Your task to perform on an android device: turn on bluetooth scan Image 0: 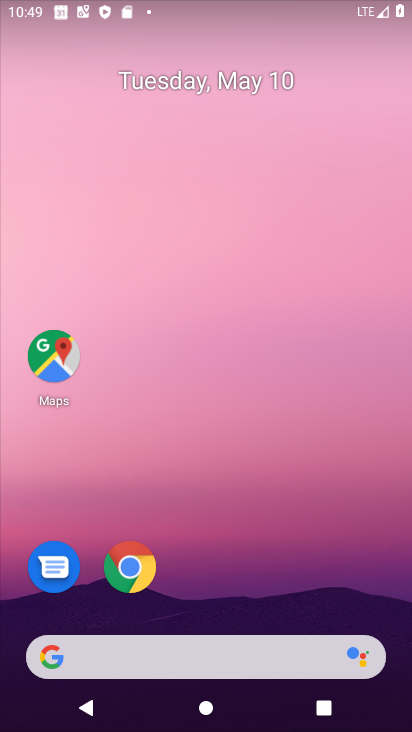
Step 0: drag from (28, 611) to (239, 194)
Your task to perform on an android device: turn on bluetooth scan Image 1: 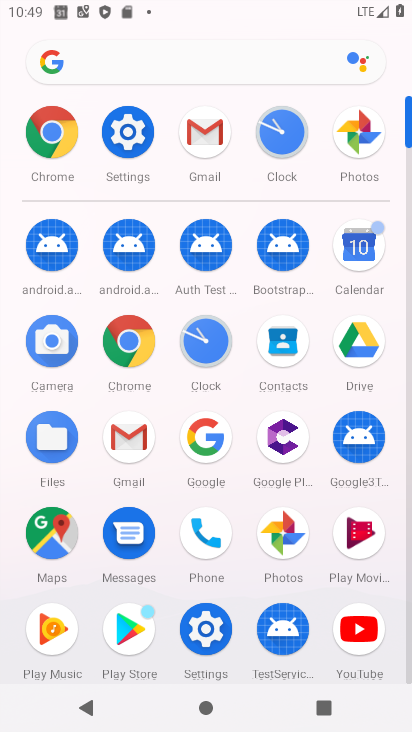
Step 1: click (114, 132)
Your task to perform on an android device: turn on bluetooth scan Image 2: 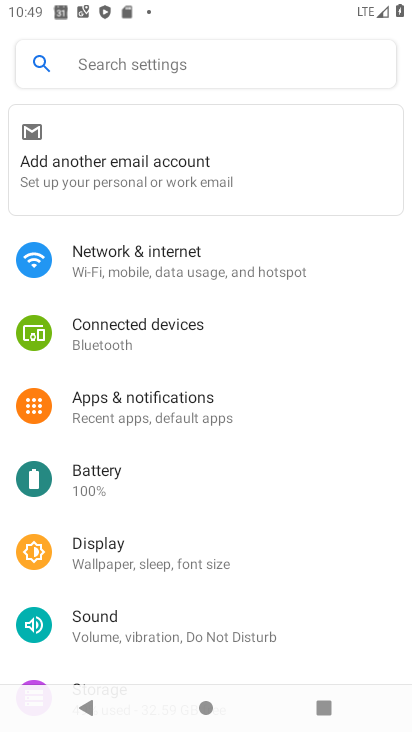
Step 2: drag from (50, 625) to (210, 196)
Your task to perform on an android device: turn on bluetooth scan Image 3: 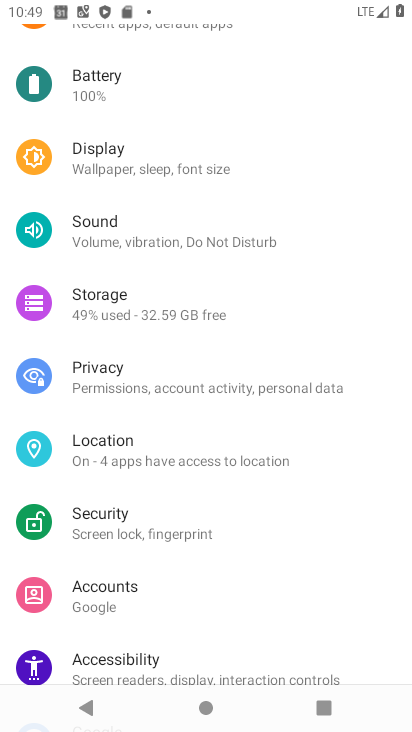
Step 3: click (171, 467)
Your task to perform on an android device: turn on bluetooth scan Image 4: 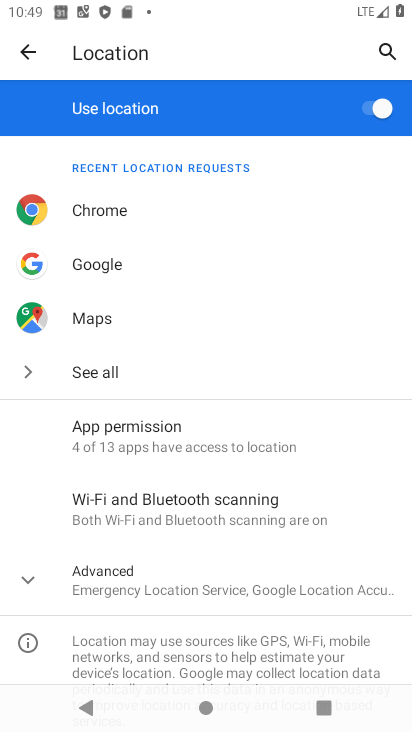
Step 4: click (174, 494)
Your task to perform on an android device: turn on bluetooth scan Image 5: 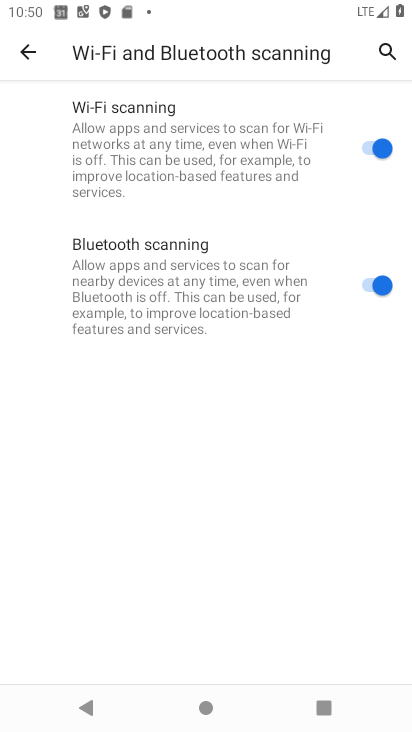
Step 5: click (375, 279)
Your task to perform on an android device: turn on bluetooth scan Image 6: 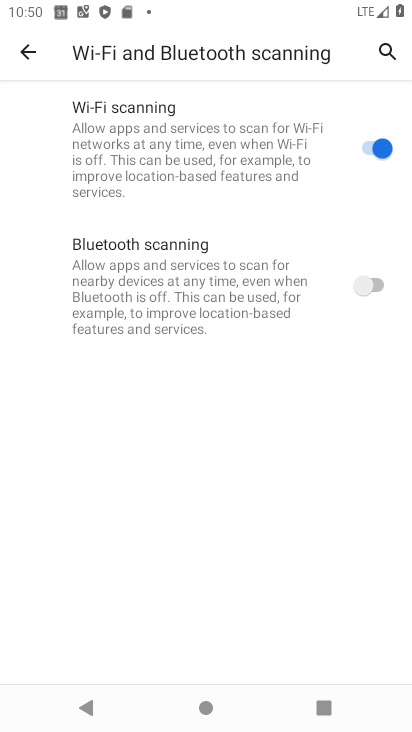
Step 6: task complete